Your task to perform on an android device: turn on improve location accuracy Image 0: 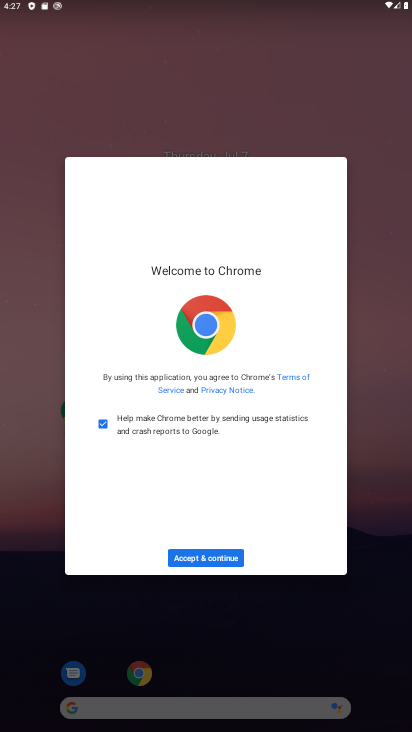
Step 0: press home button
Your task to perform on an android device: turn on improve location accuracy Image 1: 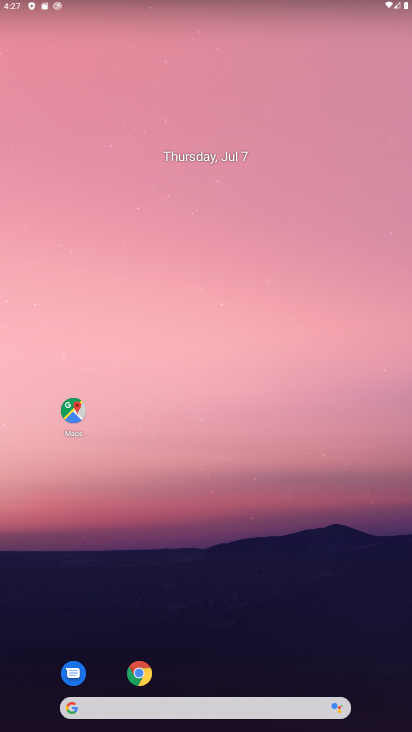
Step 1: drag from (192, 674) to (274, 118)
Your task to perform on an android device: turn on improve location accuracy Image 2: 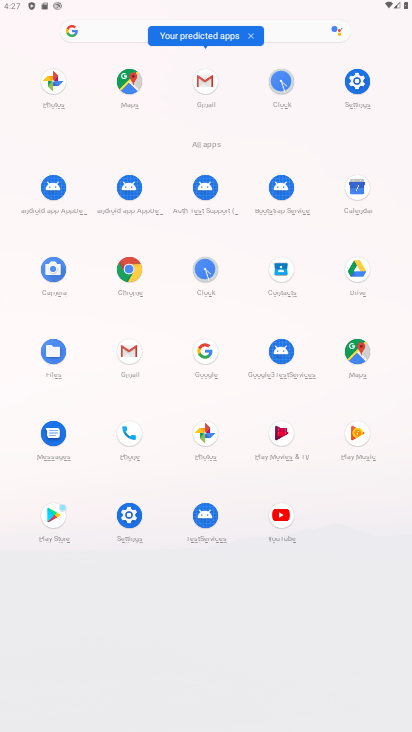
Step 2: click (138, 515)
Your task to perform on an android device: turn on improve location accuracy Image 3: 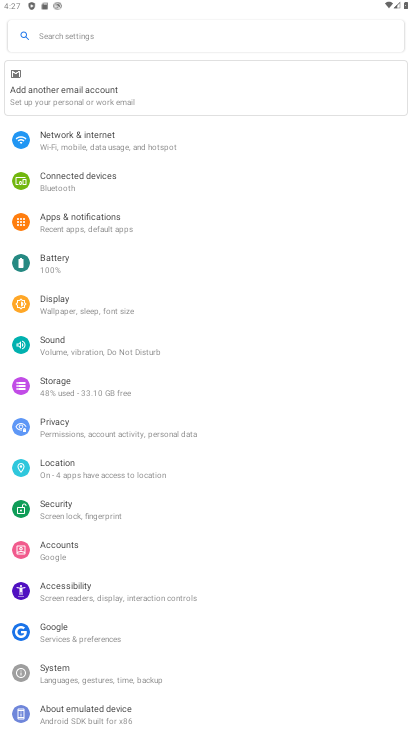
Step 3: drag from (53, 478) to (86, 319)
Your task to perform on an android device: turn on improve location accuracy Image 4: 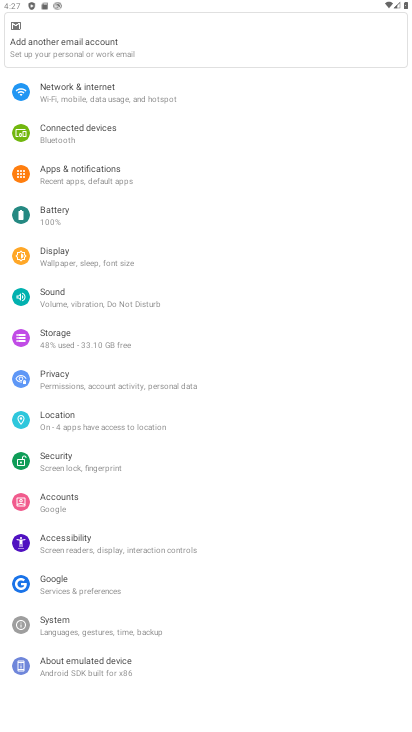
Step 4: click (66, 427)
Your task to perform on an android device: turn on improve location accuracy Image 5: 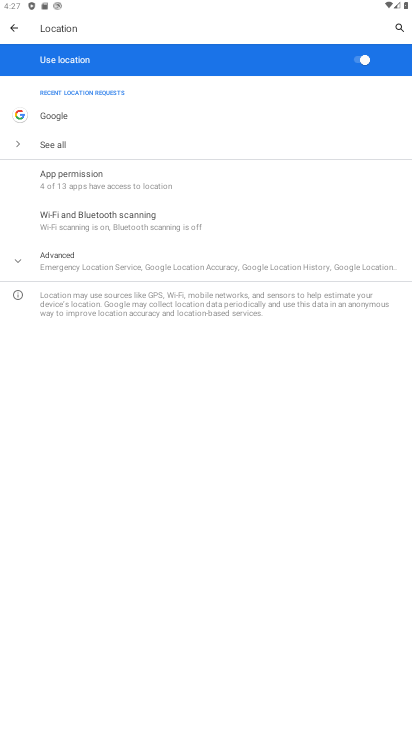
Step 5: click (149, 270)
Your task to perform on an android device: turn on improve location accuracy Image 6: 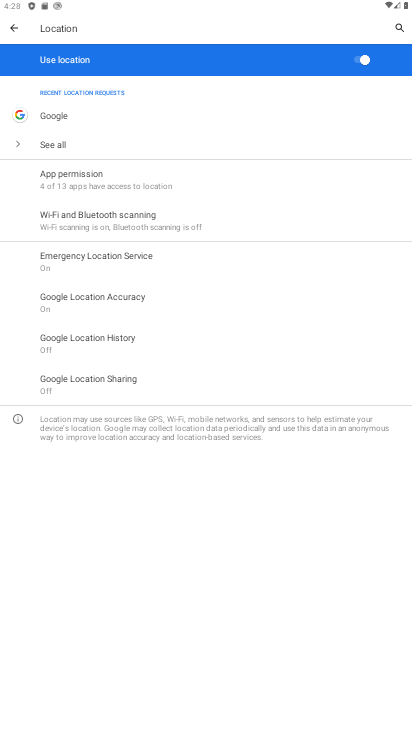
Step 6: click (143, 303)
Your task to perform on an android device: turn on improve location accuracy Image 7: 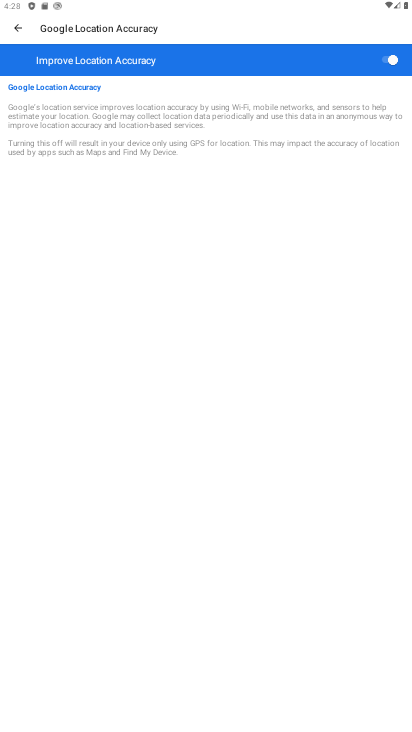
Step 7: task complete